Your task to perform on an android device: toggle notification dots Image 0: 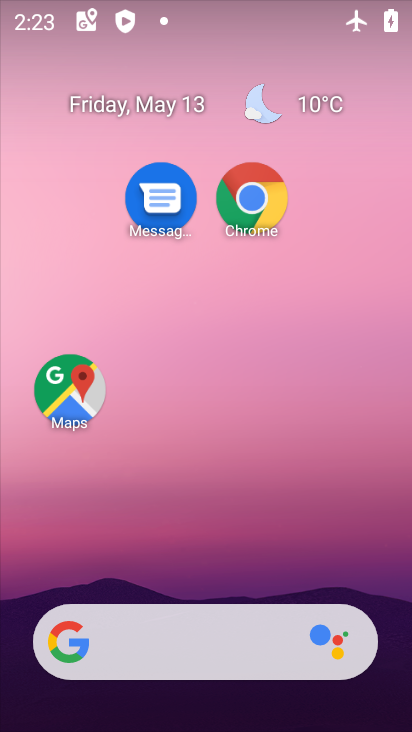
Step 0: drag from (211, 585) to (180, 29)
Your task to perform on an android device: toggle notification dots Image 1: 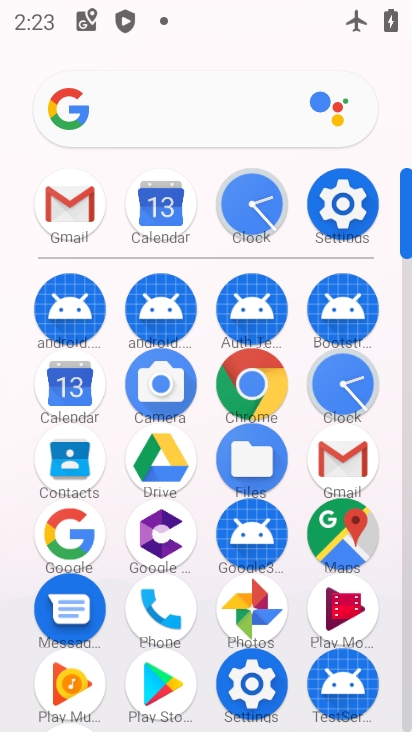
Step 1: click (329, 182)
Your task to perform on an android device: toggle notification dots Image 2: 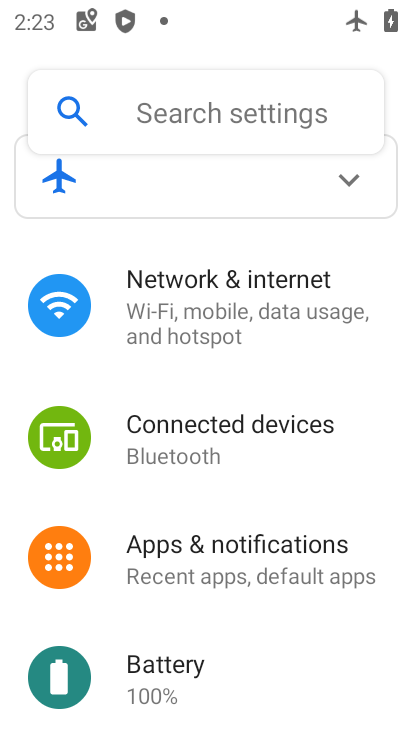
Step 2: click (156, 578)
Your task to perform on an android device: toggle notification dots Image 3: 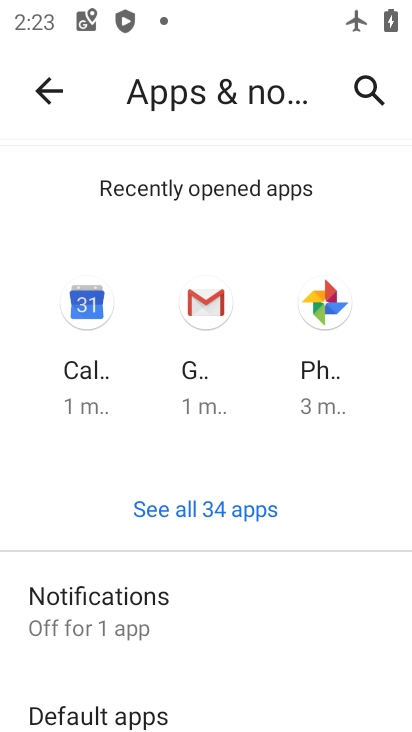
Step 3: click (137, 604)
Your task to perform on an android device: toggle notification dots Image 4: 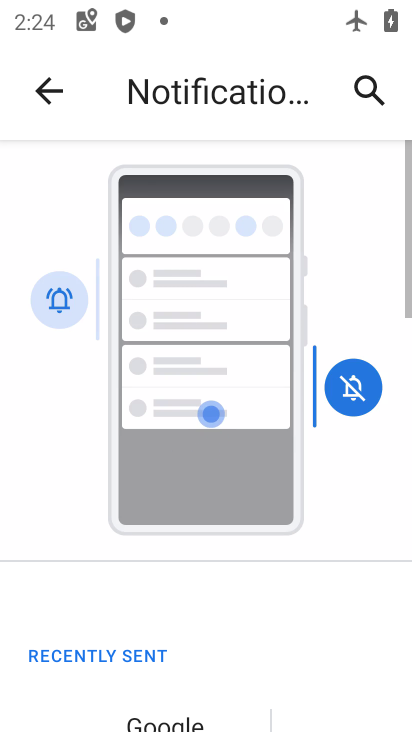
Step 4: drag from (280, 612) to (196, 116)
Your task to perform on an android device: toggle notification dots Image 5: 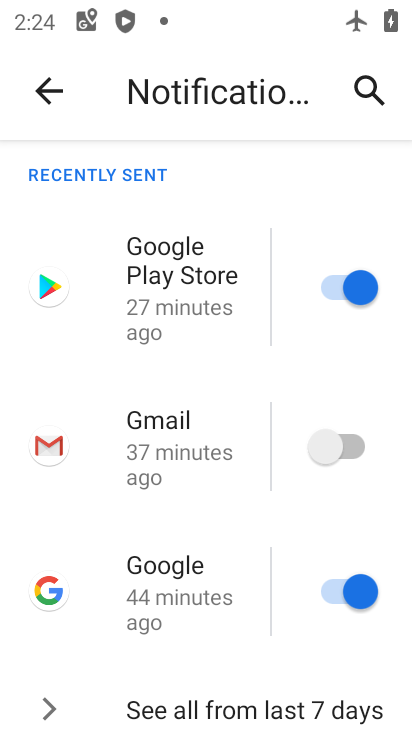
Step 5: drag from (293, 644) to (234, 136)
Your task to perform on an android device: toggle notification dots Image 6: 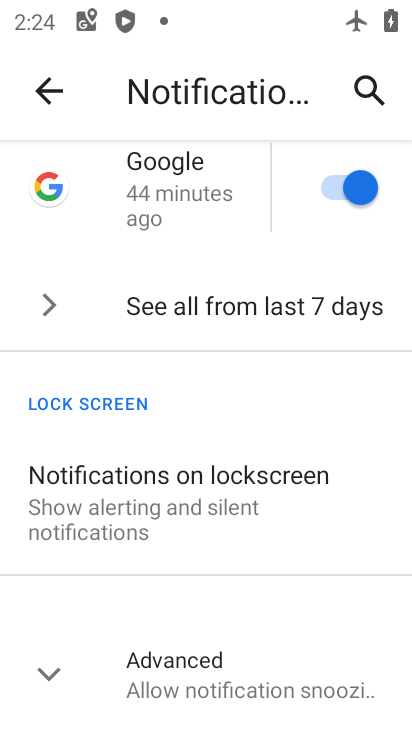
Step 6: click (242, 675)
Your task to perform on an android device: toggle notification dots Image 7: 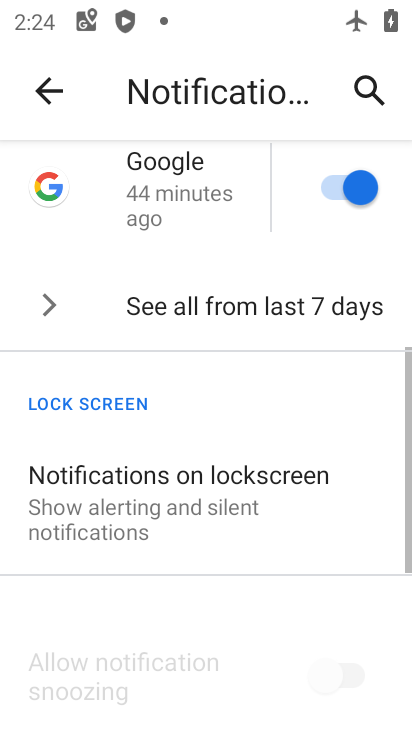
Step 7: drag from (275, 541) to (347, 2)
Your task to perform on an android device: toggle notification dots Image 8: 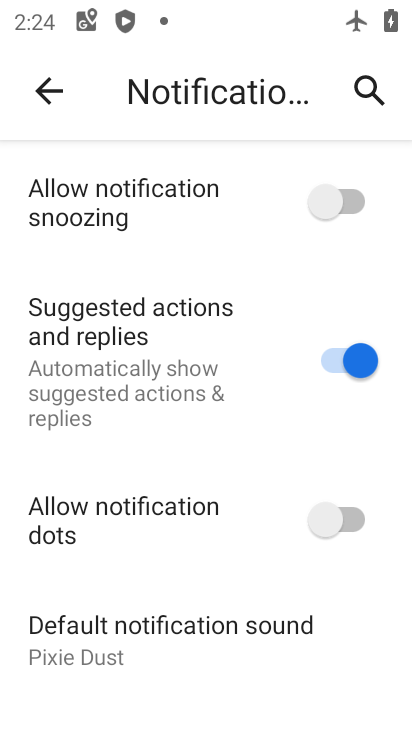
Step 8: click (326, 526)
Your task to perform on an android device: toggle notification dots Image 9: 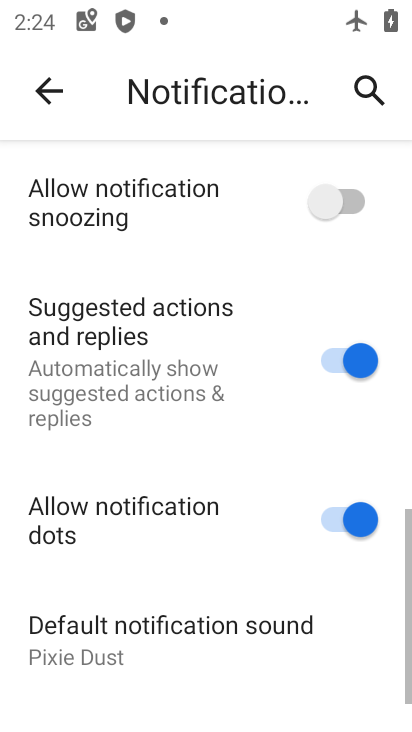
Step 9: task complete